Your task to perform on an android device: Open network settings Image 0: 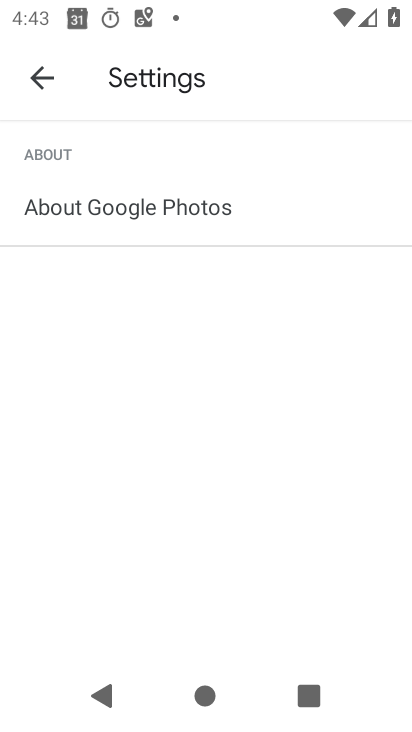
Step 0: press back button
Your task to perform on an android device: Open network settings Image 1: 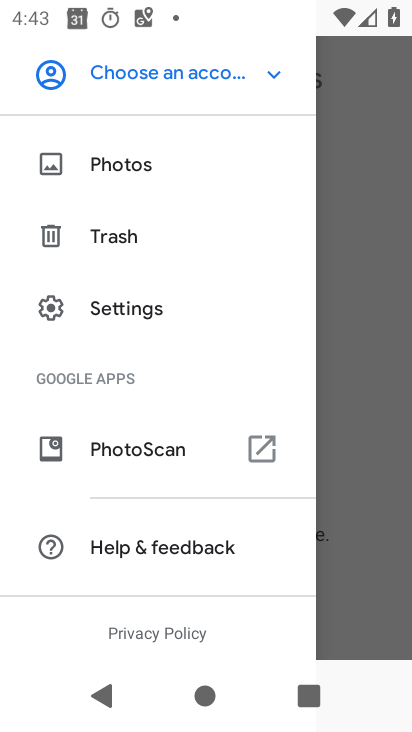
Step 1: press back button
Your task to perform on an android device: Open network settings Image 2: 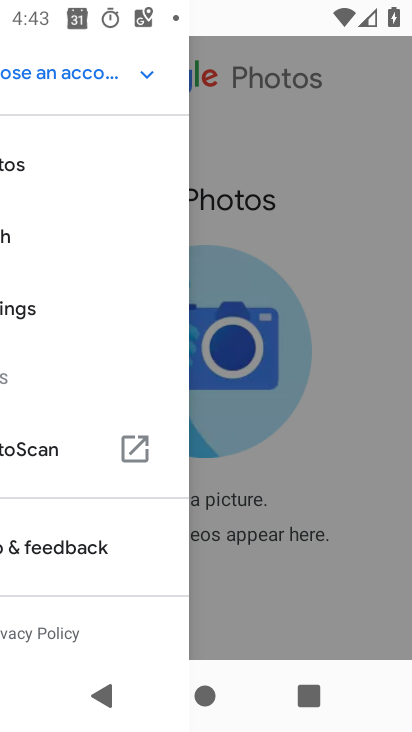
Step 2: press back button
Your task to perform on an android device: Open network settings Image 3: 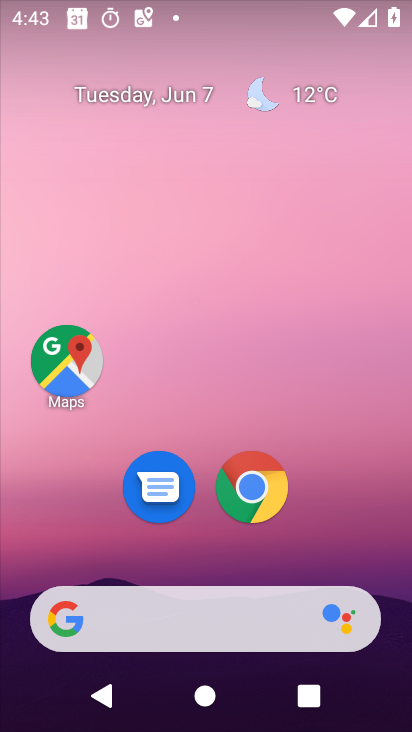
Step 3: drag from (330, 509) to (344, 108)
Your task to perform on an android device: Open network settings Image 4: 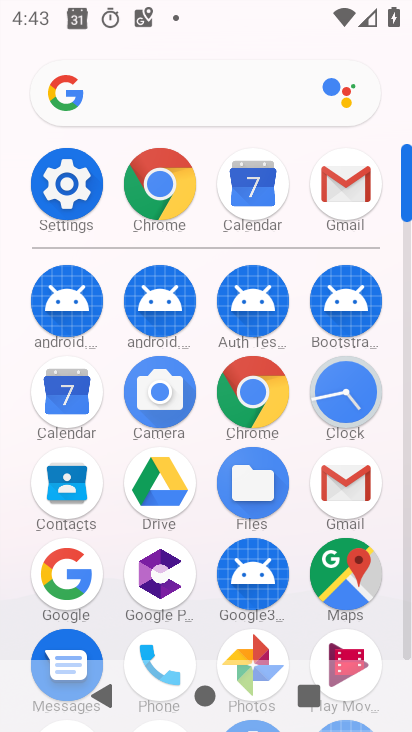
Step 4: click (65, 174)
Your task to perform on an android device: Open network settings Image 5: 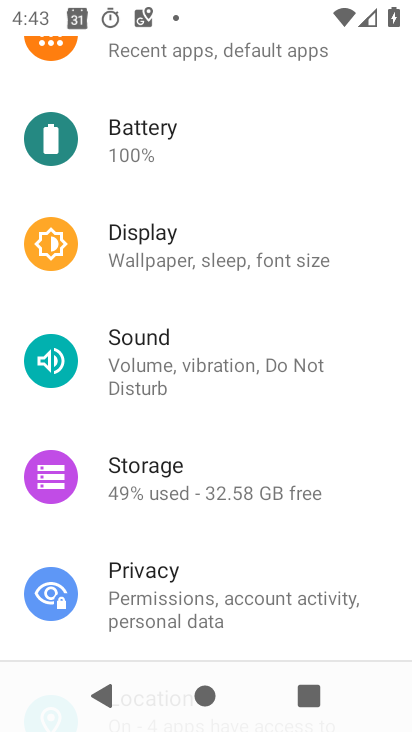
Step 5: drag from (224, 231) to (189, 649)
Your task to perform on an android device: Open network settings Image 6: 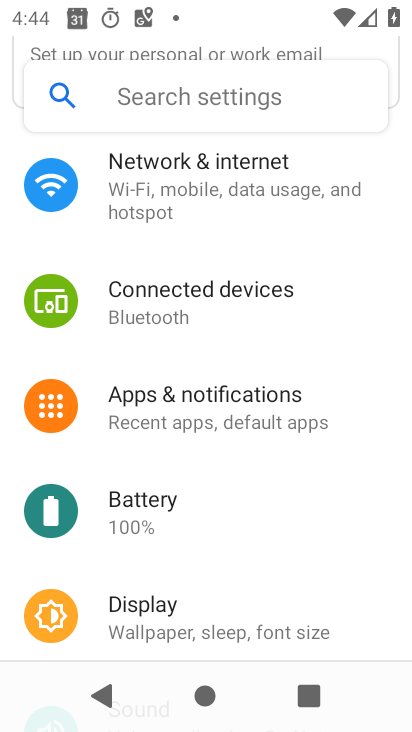
Step 6: click (211, 186)
Your task to perform on an android device: Open network settings Image 7: 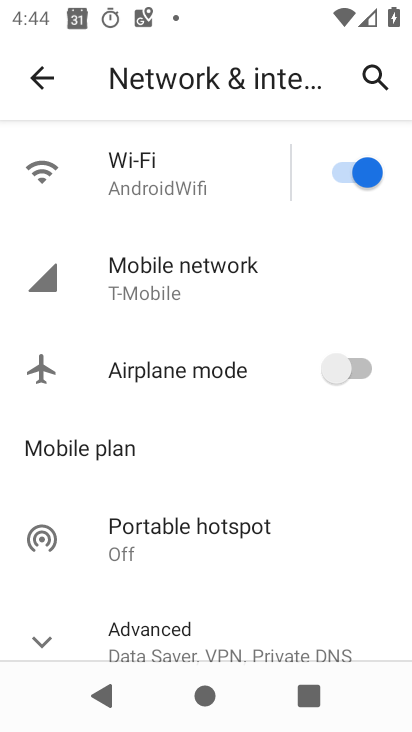
Step 7: task complete